Your task to perform on an android device: What is the news today? Image 0: 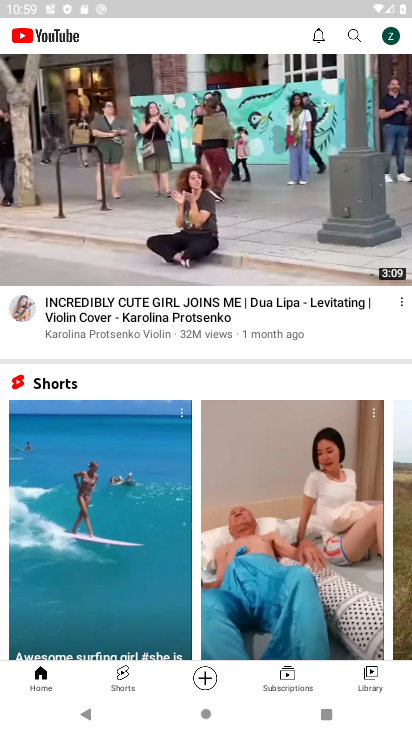
Step 0: press home button
Your task to perform on an android device: What is the news today? Image 1: 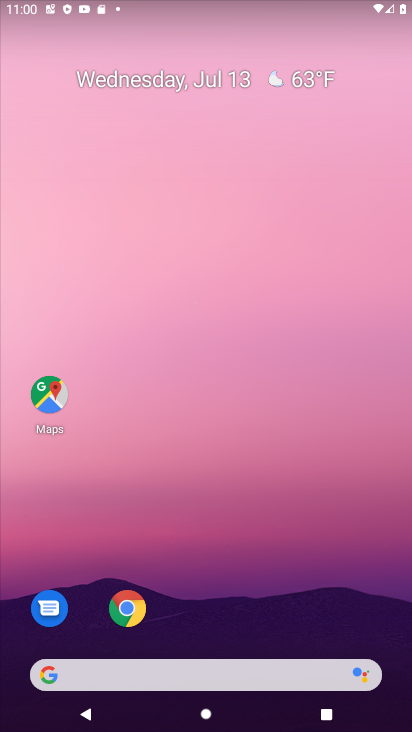
Step 1: click (42, 676)
Your task to perform on an android device: What is the news today? Image 2: 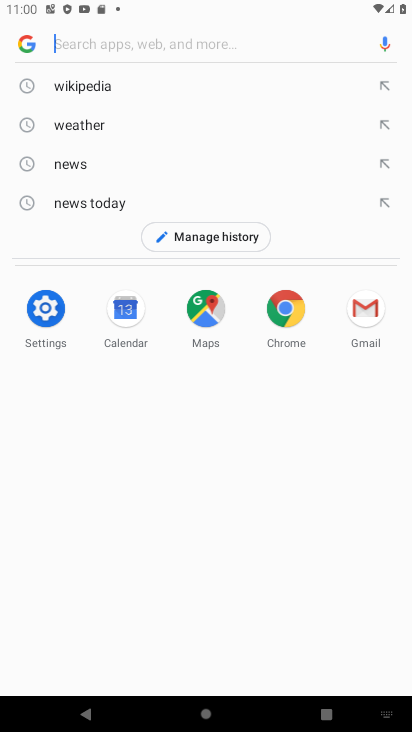
Step 2: type "news today"
Your task to perform on an android device: What is the news today? Image 3: 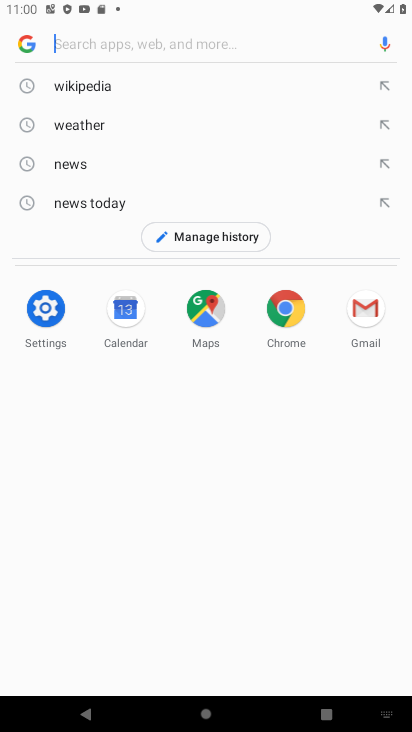
Step 3: click (90, 43)
Your task to perform on an android device: What is the news today? Image 4: 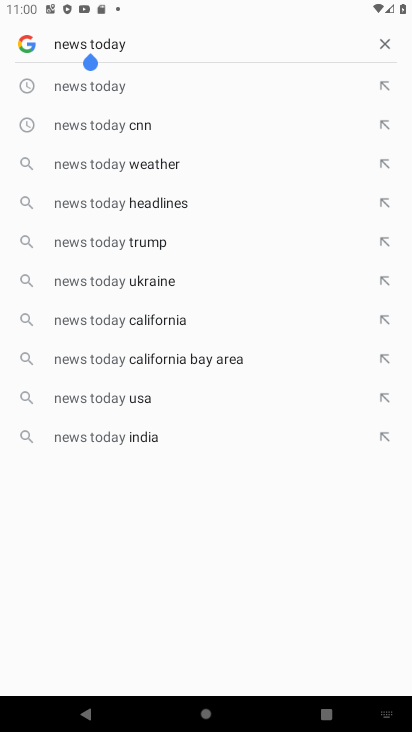
Step 4: click (109, 83)
Your task to perform on an android device: What is the news today? Image 5: 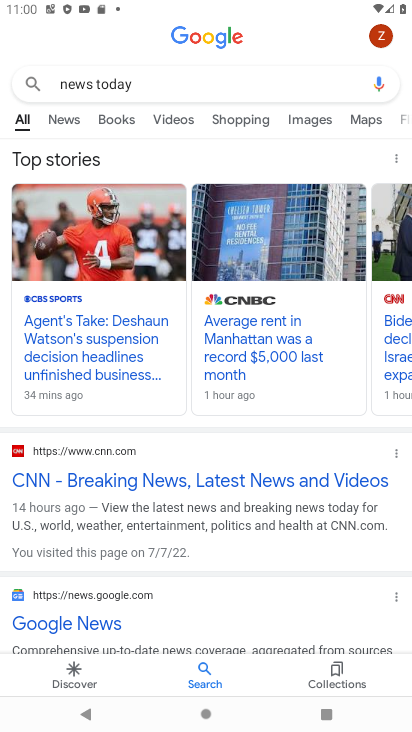
Step 5: task complete